Your task to perform on an android device: Open sound settings Image 0: 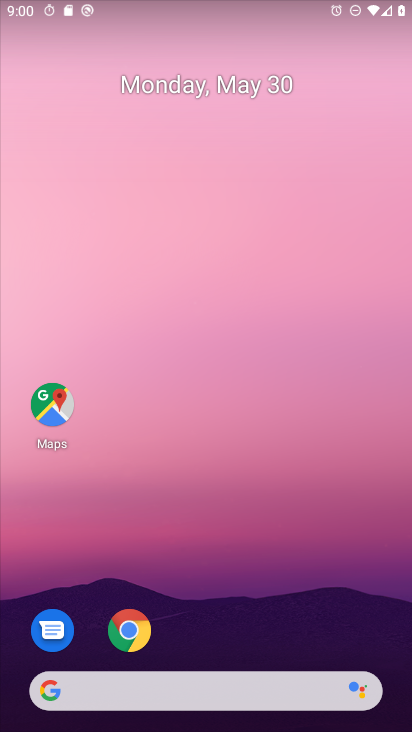
Step 0: drag from (355, 604) to (223, 75)
Your task to perform on an android device: Open sound settings Image 1: 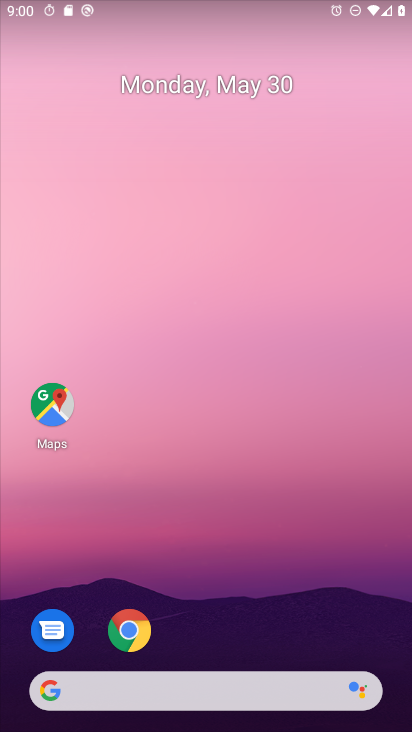
Step 1: drag from (365, 632) to (244, 6)
Your task to perform on an android device: Open sound settings Image 2: 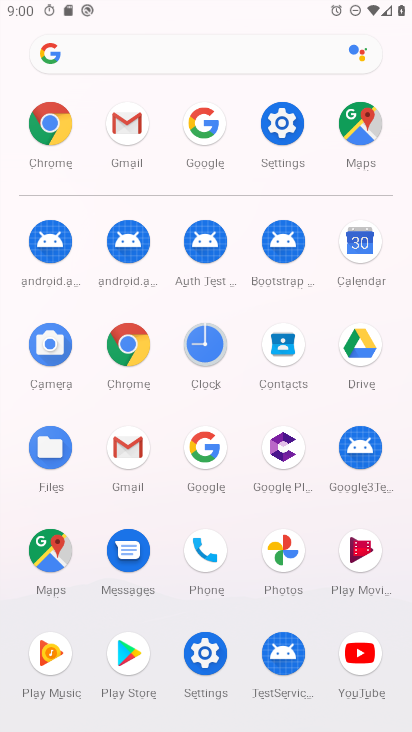
Step 2: click (263, 123)
Your task to perform on an android device: Open sound settings Image 3: 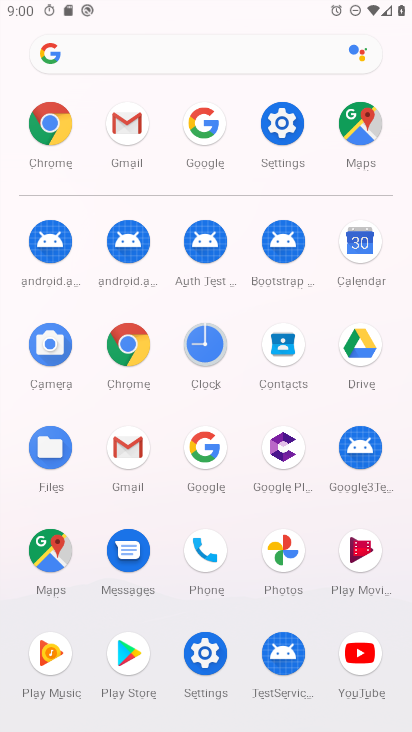
Step 3: click (210, 653)
Your task to perform on an android device: Open sound settings Image 4: 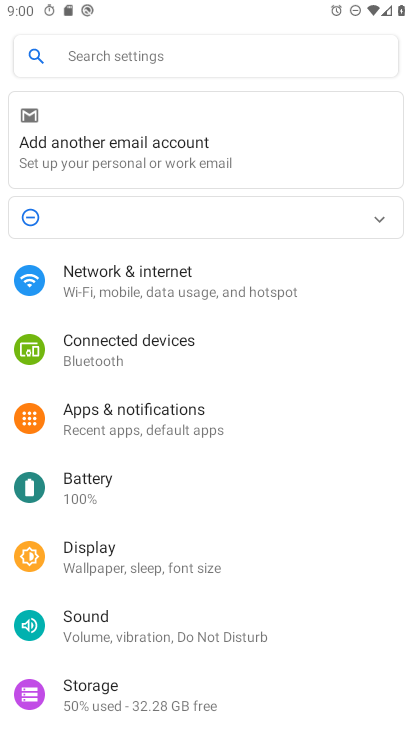
Step 4: click (162, 644)
Your task to perform on an android device: Open sound settings Image 5: 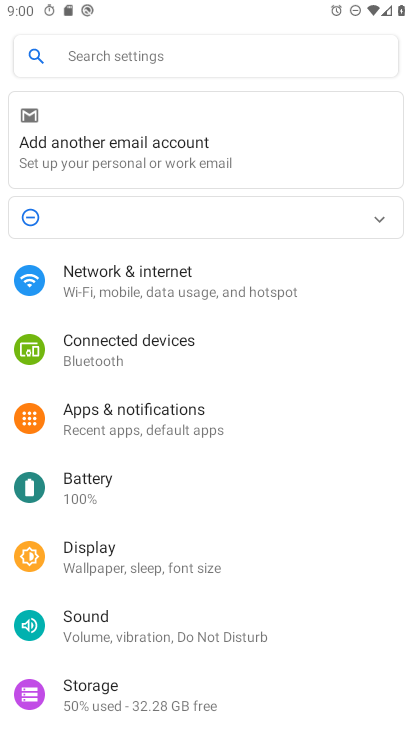
Step 5: click (149, 634)
Your task to perform on an android device: Open sound settings Image 6: 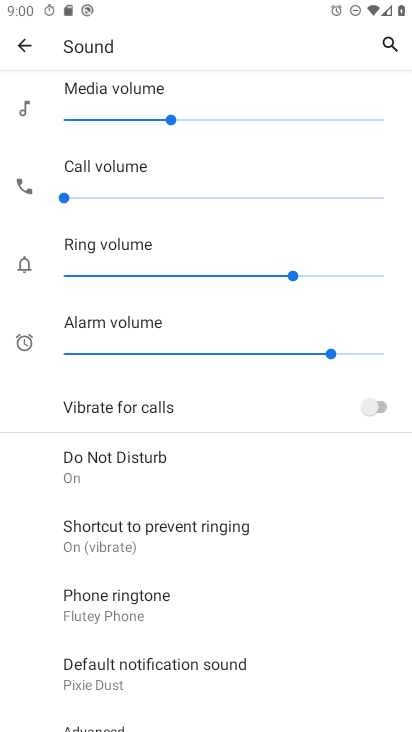
Step 6: task complete
Your task to perform on an android device: Open sound settings Image 7: 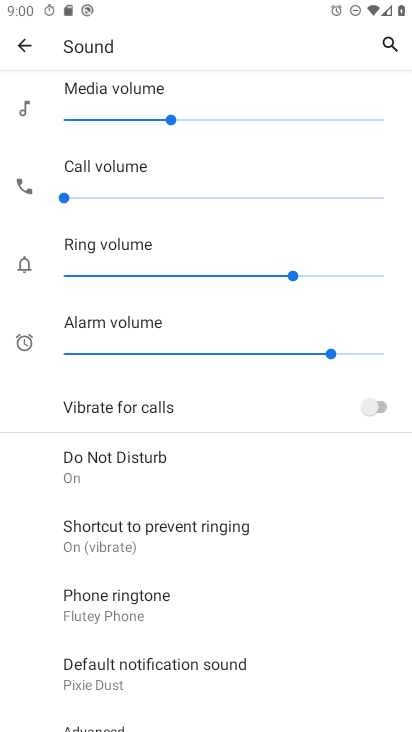
Step 7: task complete